Your task to perform on an android device: Check the weather Image 0: 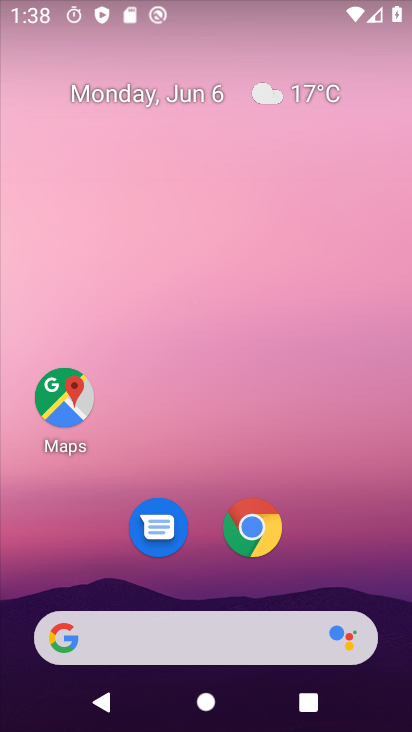
Step 0: drag from (169, 720) to (167, 174)
Your task to perform on an android device: Check the weather Image 1: 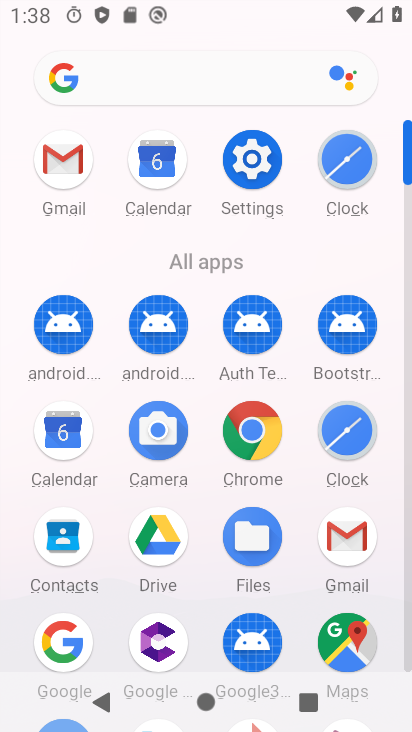
Step 1: click (59, 650)
Your task to perform on an android device: Check the weather Image 2: 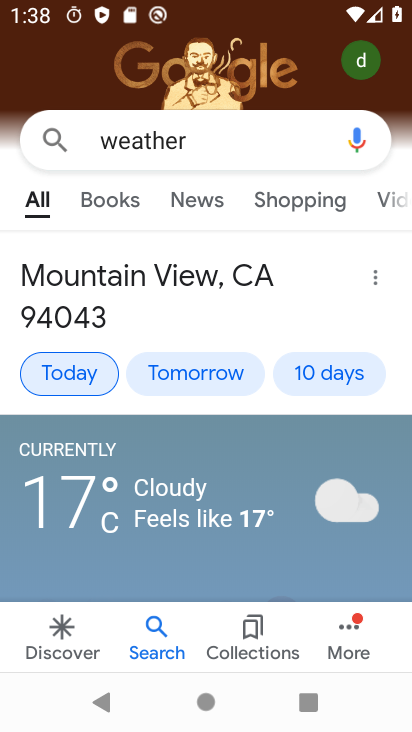
Step 2: click (78, 369)
Your task to perform on an android device: Check the weather Image 3: 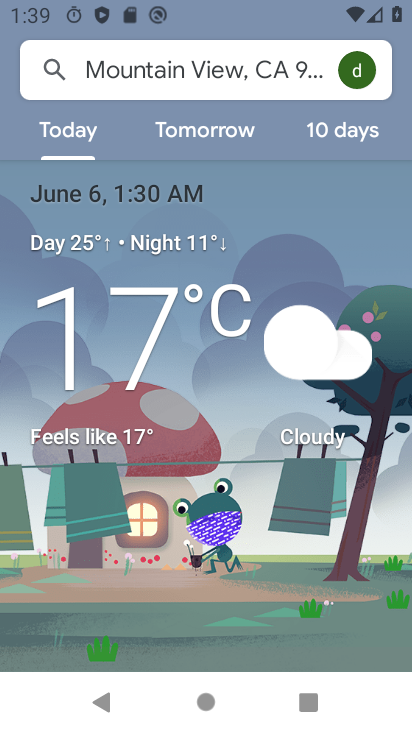
Step 3: task complete